Your task to perform on an android device: Open ESPN.com Image 0: 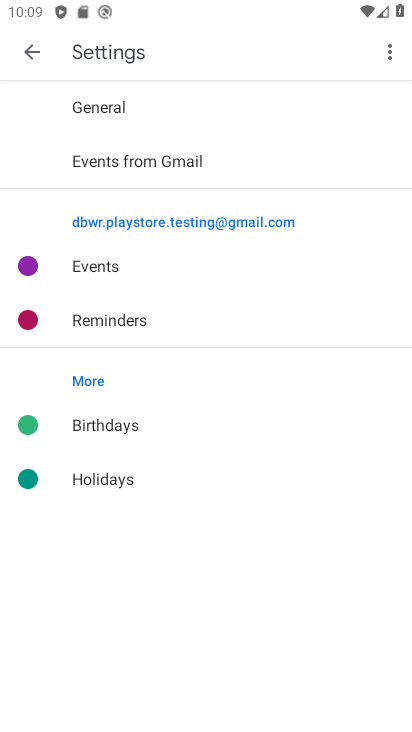
Step 0: press home button
Your task to perform on an android device: Open ESPN.com Image 1: 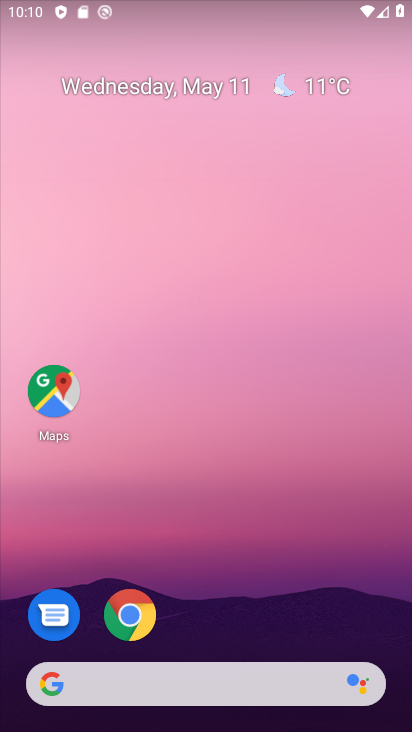
Step 1: click (130, 618)
Your task to perform on an android device: Open ESPN.com Image 2: 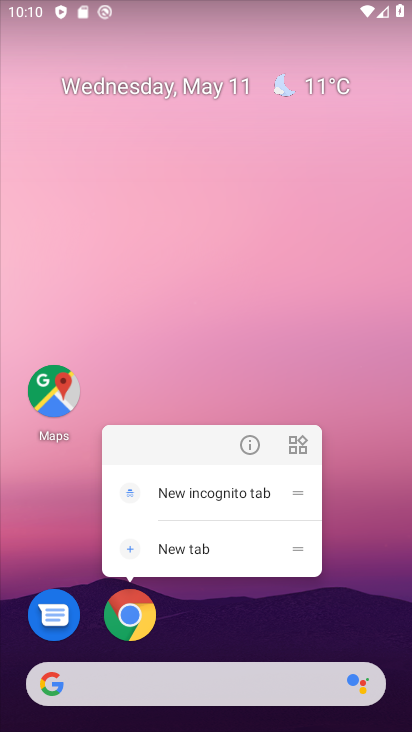
Step 2: click (130, 618)
Your task to perform on an android device: Open ESPN.com Image 3: 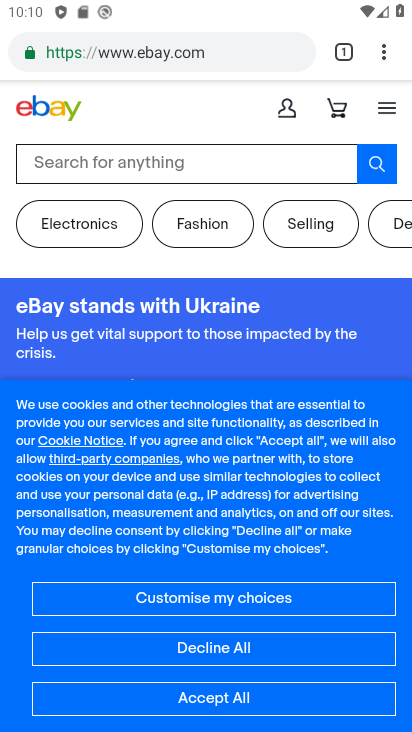
Step 3: click (164, 65)
Your task to perform on an android device: Open ESPN.com Image 4: 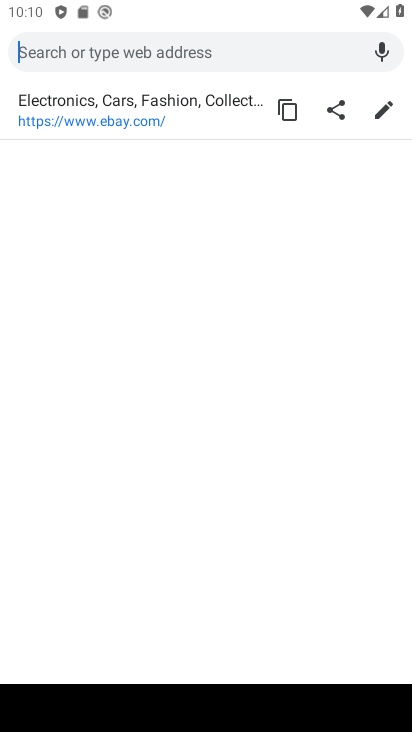
Step 4: type "espn.com"
Your task to perform on an android device: Open ESPN.com Image 5: 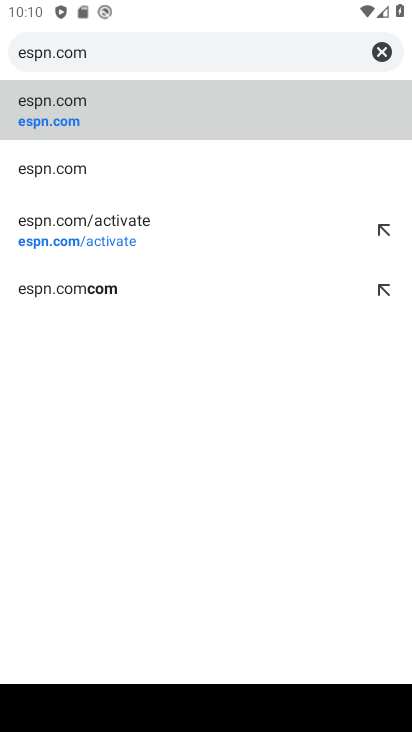
Step 5: click (51, 119)
Your task to perform on an android device: Open ESPN.com Image 6: 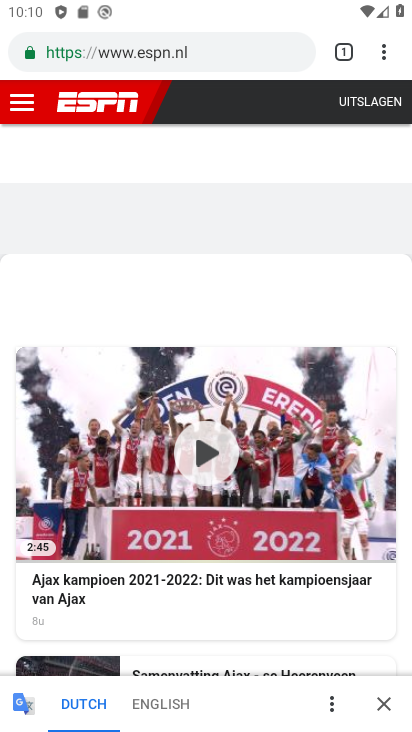
Step 6: task complete